Your task to perform on an android device: open chrome and create a bookmark for the current page Image 0: 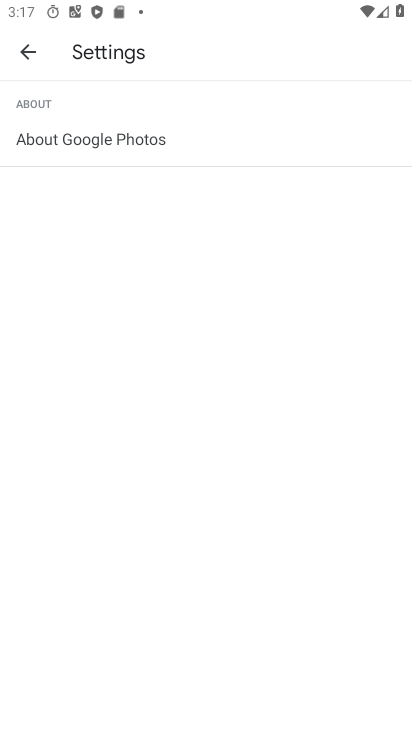
Step 0: press home button
Your task to perform on an android device: open chrome and create a bookmark for the current page Image 1: 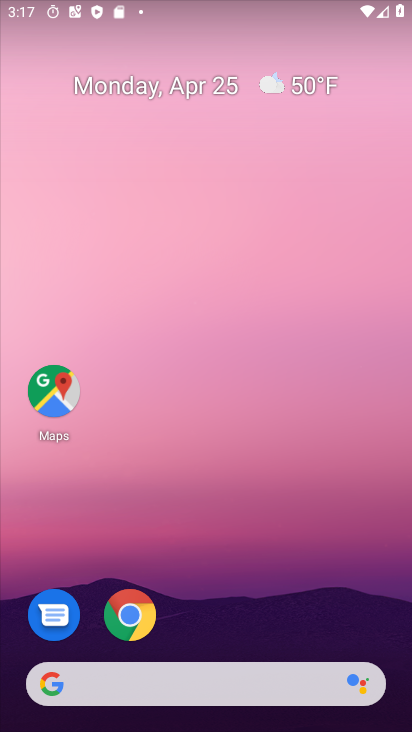
Step 1: click (127, 619)
Your task to perform on an android device: open chrome and create a bookmark for the current page Image 2: 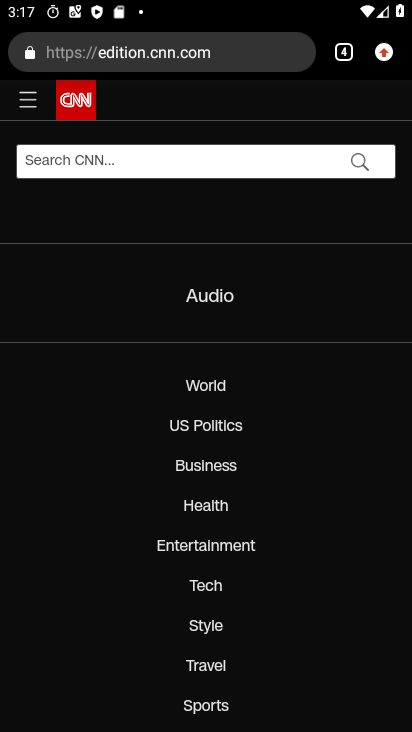
Step 2: click (386, 59)
Your task to perform on an android device: open chrome and create a bookmark for the current page Image 3: 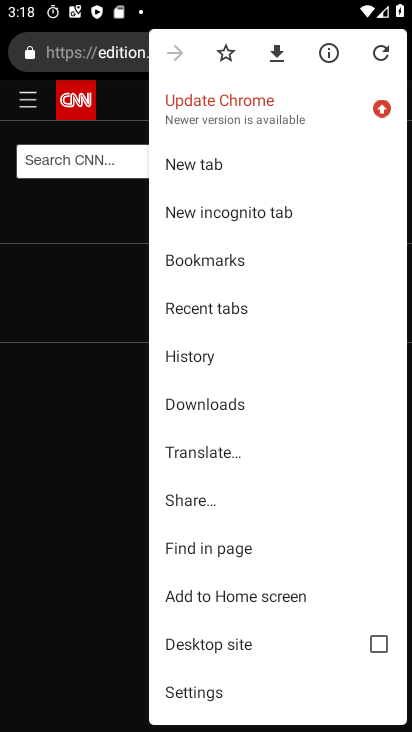
Step 3: click (219, 50)
Your task to perform on an android device: open chrome and create a bookmark for the current page Image 4: 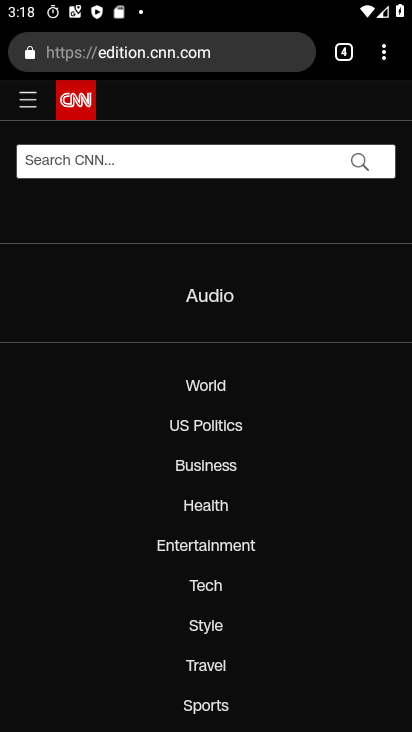
Step 4: task complete